Your task to perform on an android device: Open ESPN.com Image 0: 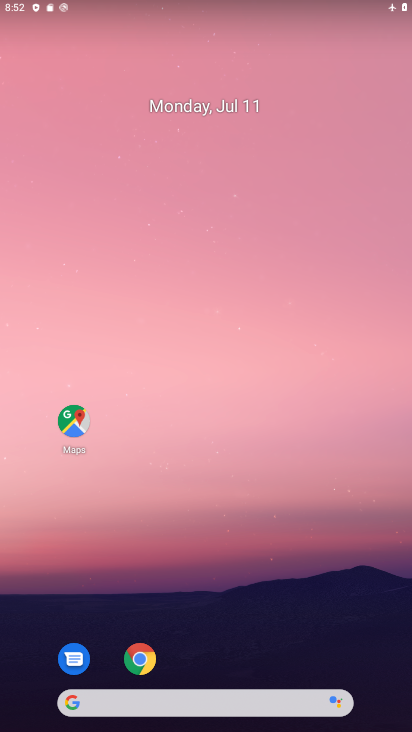
Step 0: click (135, 649)
Your task to perform on an android device: Open ESPN.com Image 1: 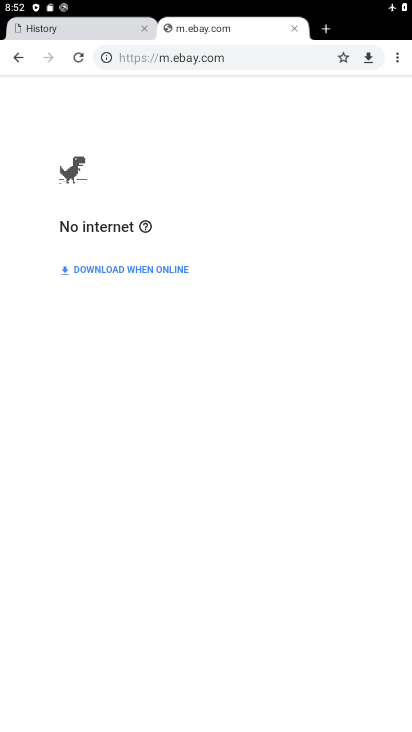
Step 1: click (324, 32)
Your task to perform on an android device: Open ESPN.com Image 2: 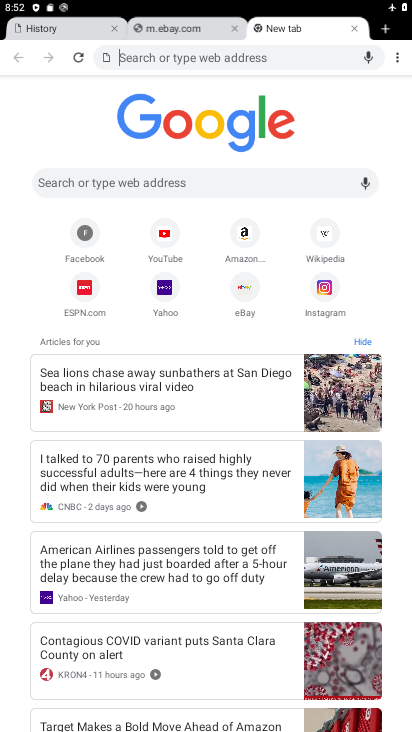
Step 2: click (92, 284)
Your task to perform on an android device: Open ESPN.com Image 3: 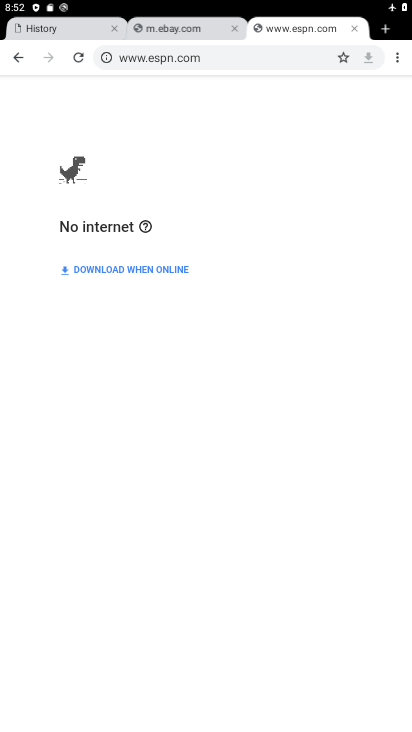
Step 3: task complete